Your task to perform on an android device: uninstall "Roku - Official Remote Control" Image 0: 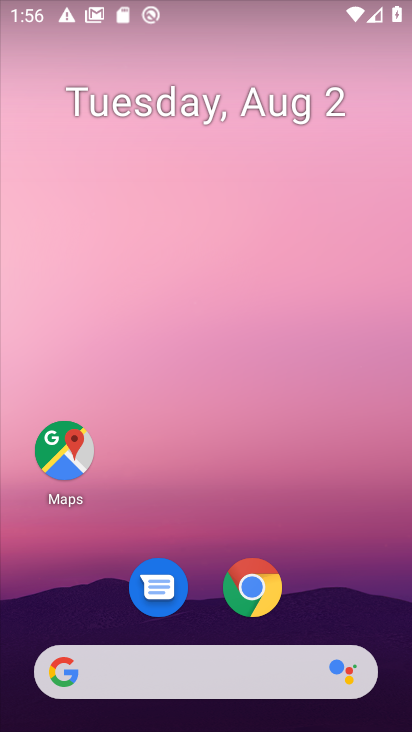
Step 0: drag from (194, 545) to (204, 185)
Your task to perform on an android device: uninstall "Roku - Official Remote Control" Image 1: 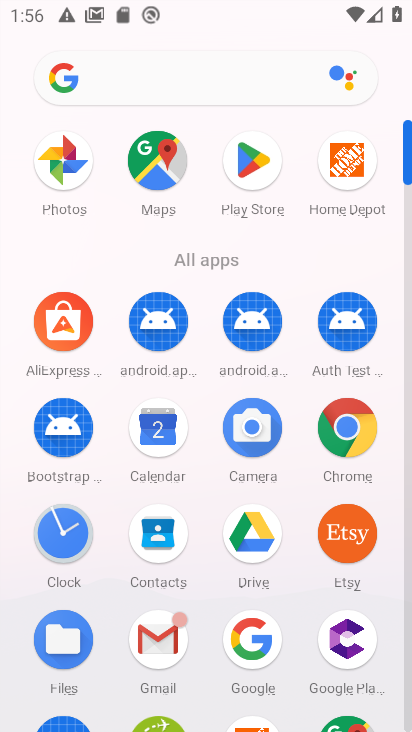
Step 1: click (252, 188)
Your task to perform on an android device: uninstall "Roku - Official Remote Control" Image 2: 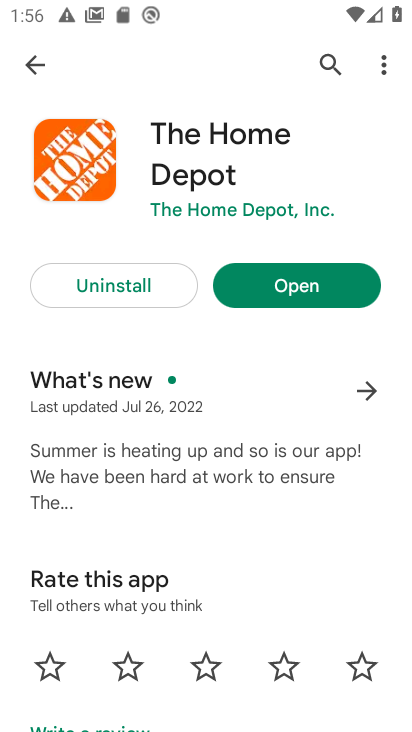
Step 2: click (336, 67)
Your task to perform on an android device: uninstall "Roku - Official Remote Control" Image 3: 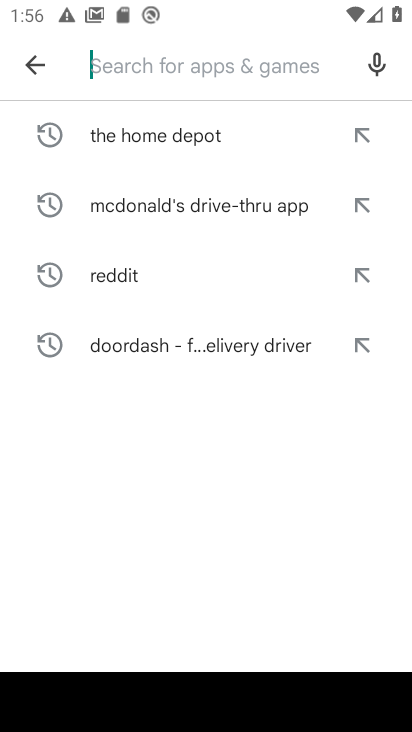
Step 3: type "Roku - Official Remote Control"
Your task to perform on an android device: uninstall "Roku - Official Remote Control" Image 4: 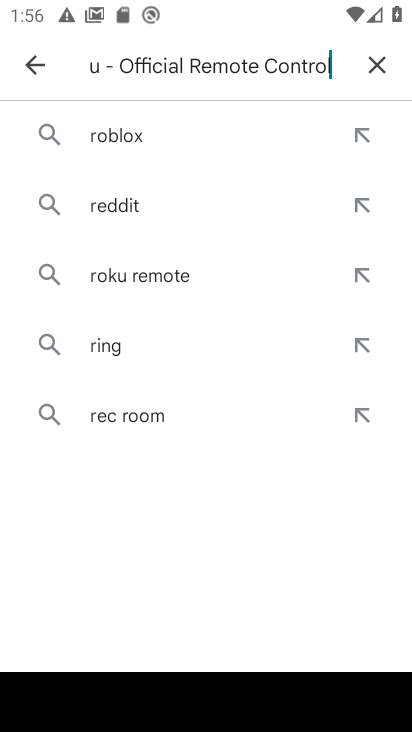
Step 4: type ""
Your task to perform on an android device: uninstall "Roku - Official Remote Control" Image 5: 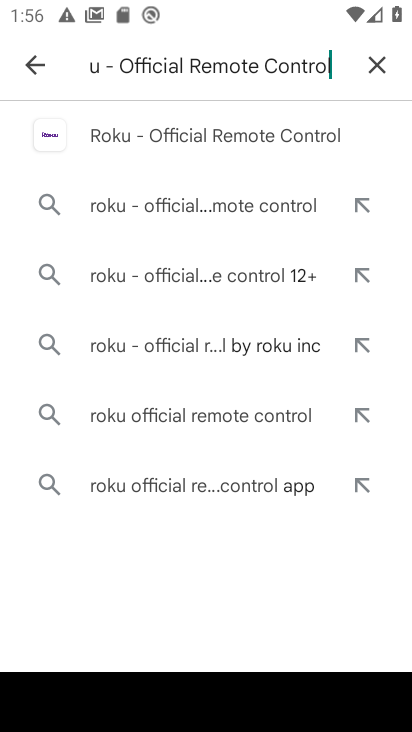
Step 5: click (191, 138)
Your task to perform on an android device: uninstall "Roku - Official Remote Control" Image 6: 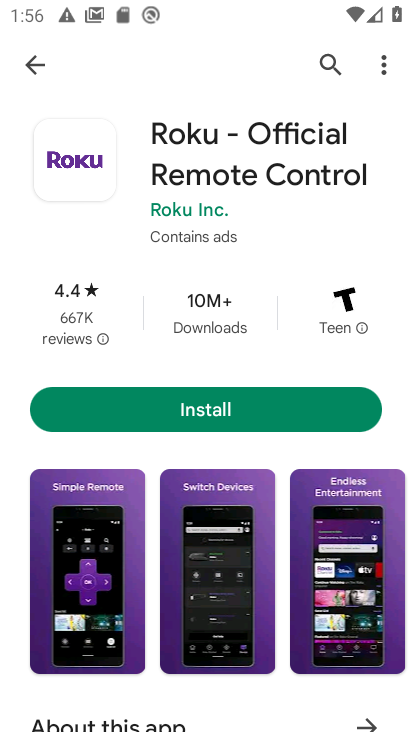
Step 6: task complete